Your task to perform on an android device: What's the weather today? Image 0: 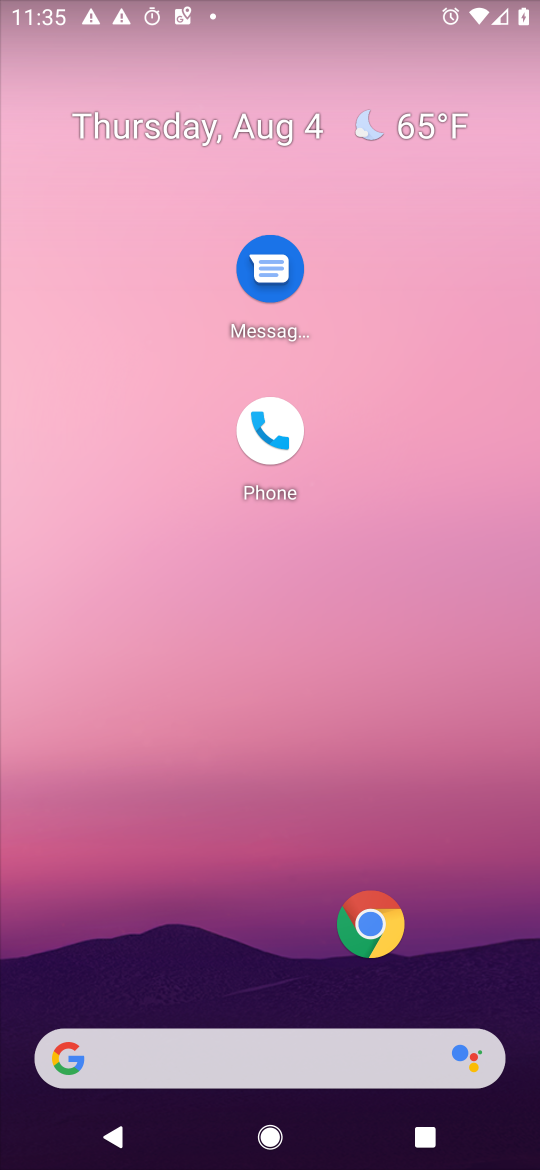
Step 0: drag from (241, 791) to (277, 119)
Your task to perform on an android device: What's the weather today? Image 1: 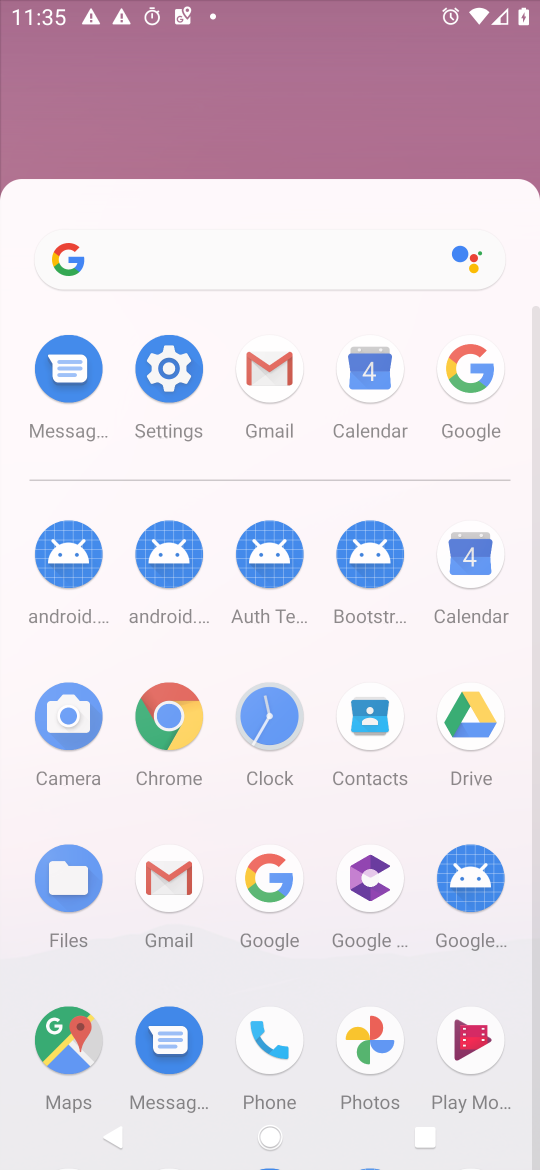
Step 1: drag from (232, 666) to (275, 203)
Your task to perform on an android device: What's the weather today? Image 2: 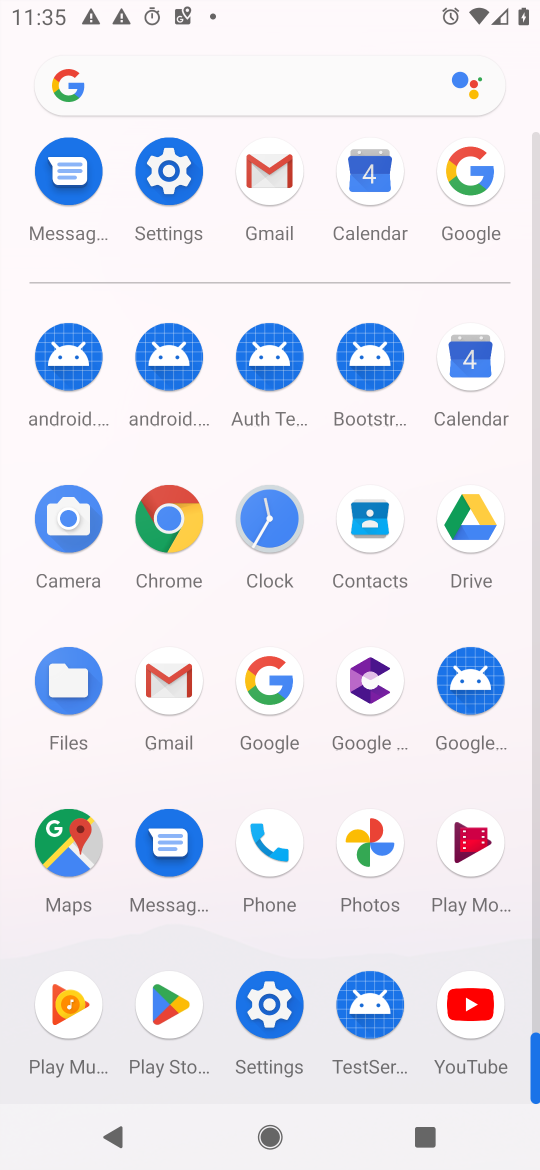
Step 2: click (250, 82)
Your task to perform on an android device: What's the weather today? Image 3: 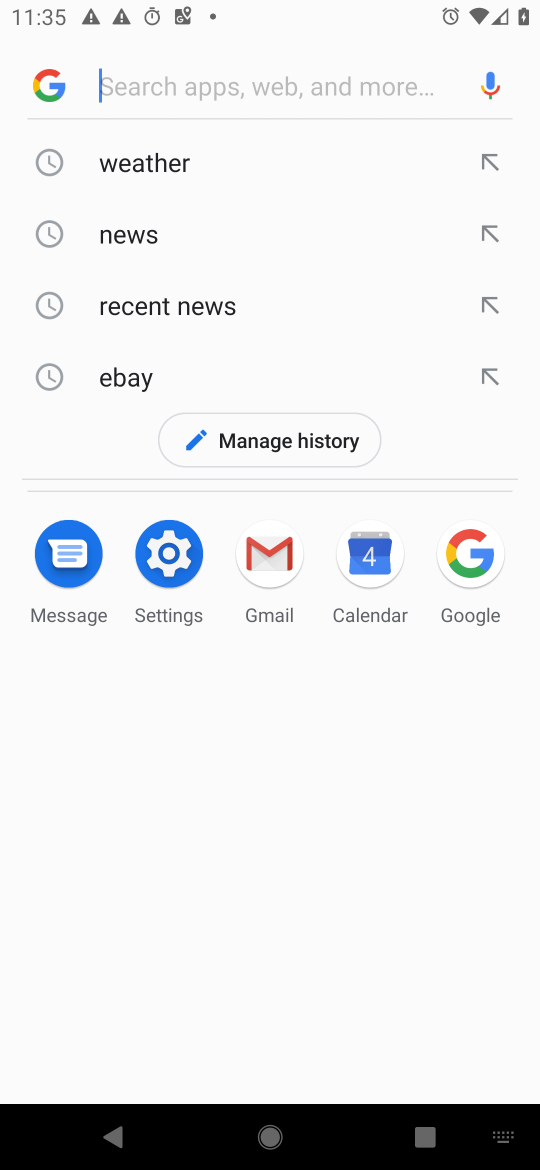
Step 3: type "What's the weather today?"
Your task to perform on an android device: What's the weather today? Image 4: 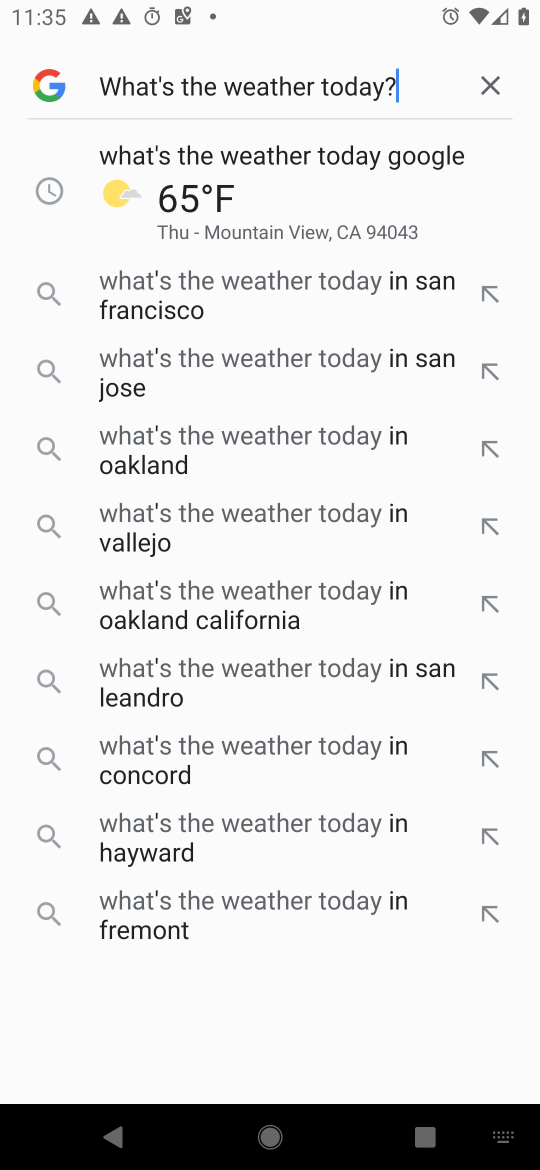
Step 4: type ""
Your task to perform on an android device: What's the weather today? Image 5: 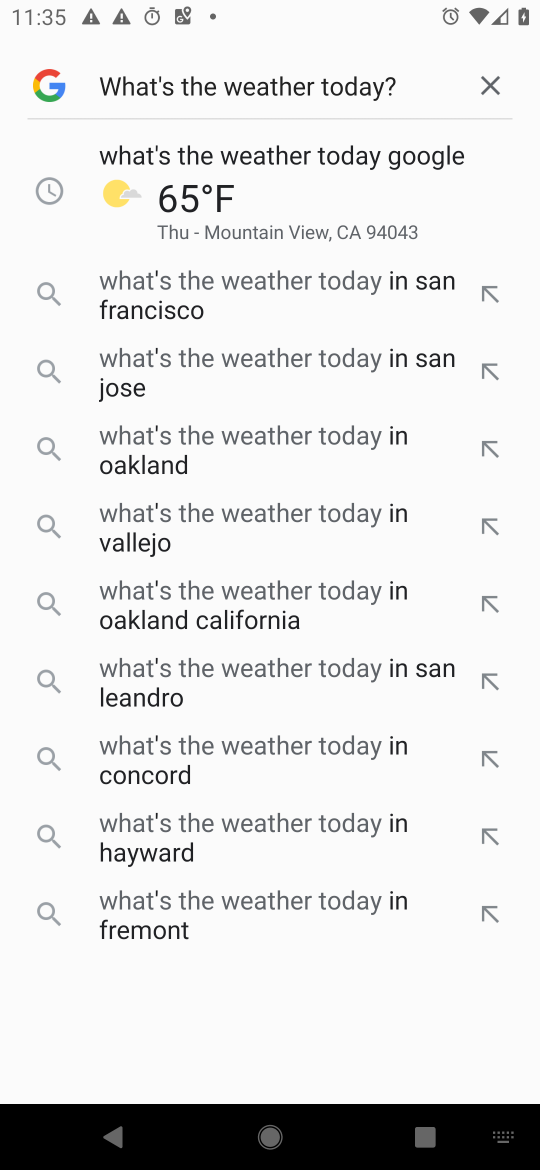
Step 5: click (207, 161)
Your task to perform on an android device: What's the weather today? Image 6: 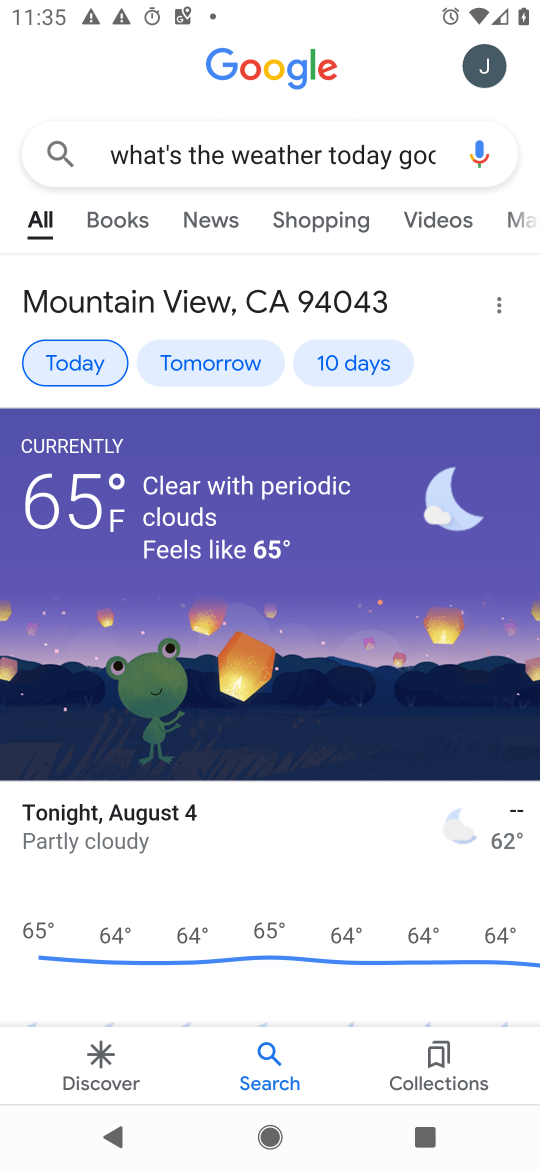
Step 6: task complete